Your task to perform on an android device: Go to CNN.com Image 0: 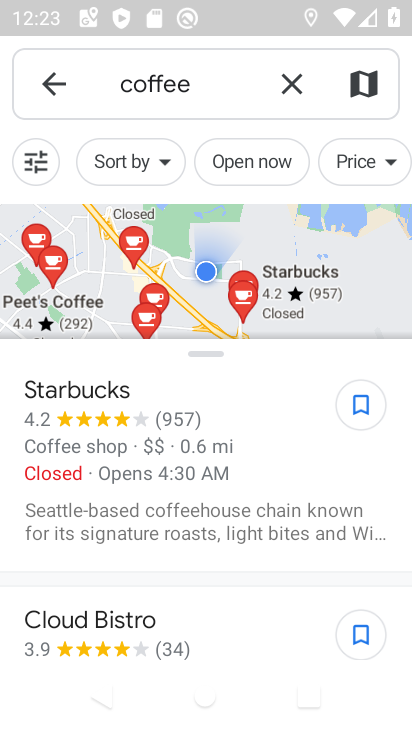
Step 0: press home button
Your task to perform on an android device: Go to CNN.com Image 1: 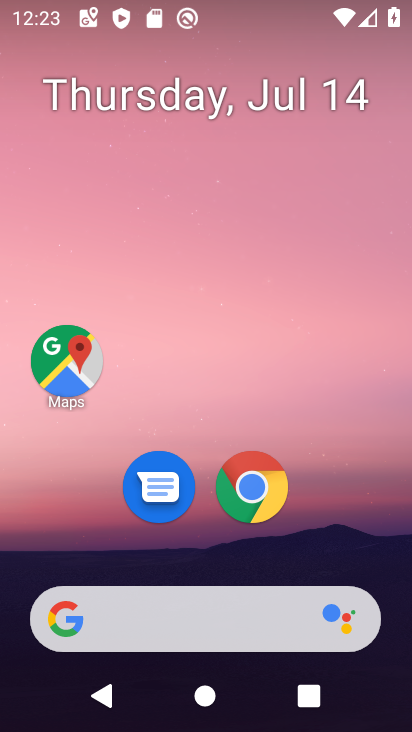
Step 1: drag from (264, 614) to (284, 303)
Your task to perform on an android device: Go to CNN.com Image 2: 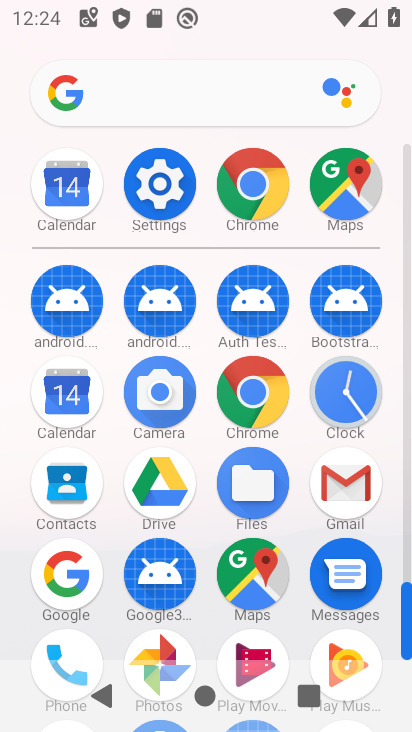
Step 2: click (245, 209)
Your task to perform on an android device: Go to CNN.com Image 3: 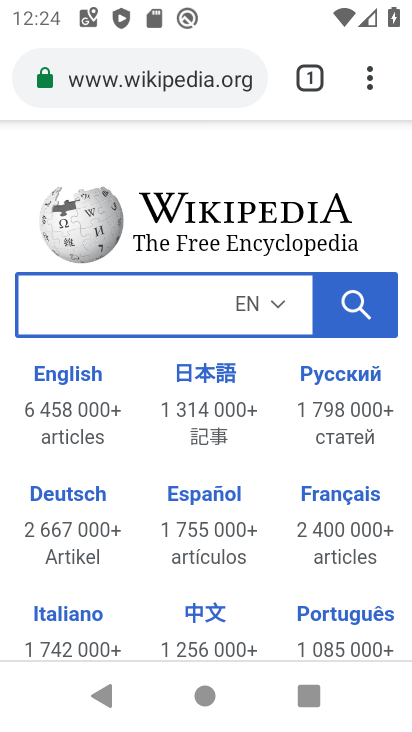
Step 3: click (217, 83)
Your task to perform on an android device: Go to CNN.com Image 4: 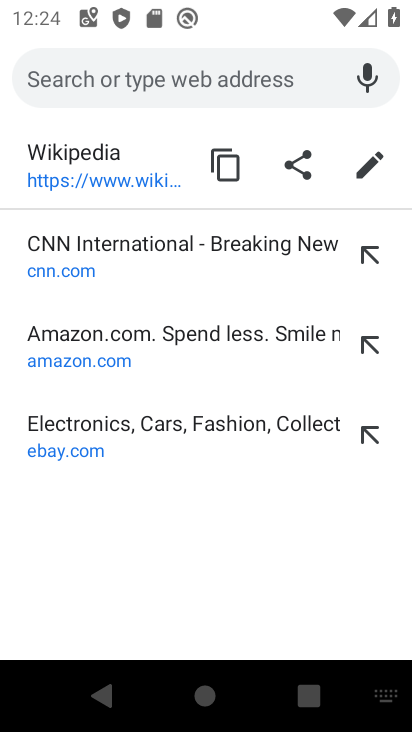
Step 4: click (191, 266)
Your task to perform on an android device: Go to CNN.com Image 5: 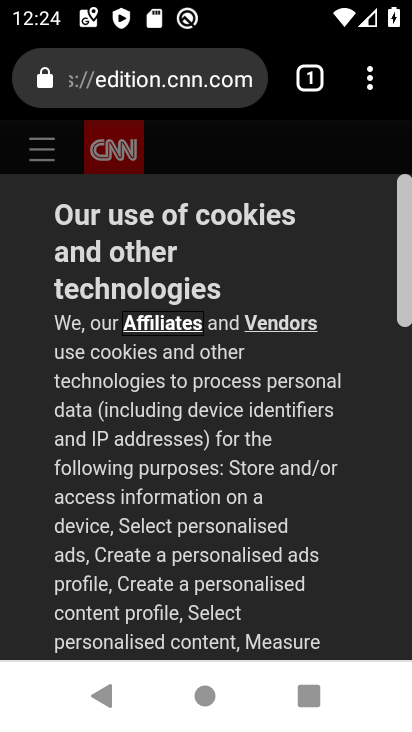
Step 5: task complete